Your task to perform on an android device: Turn off the flashlight Image 0: 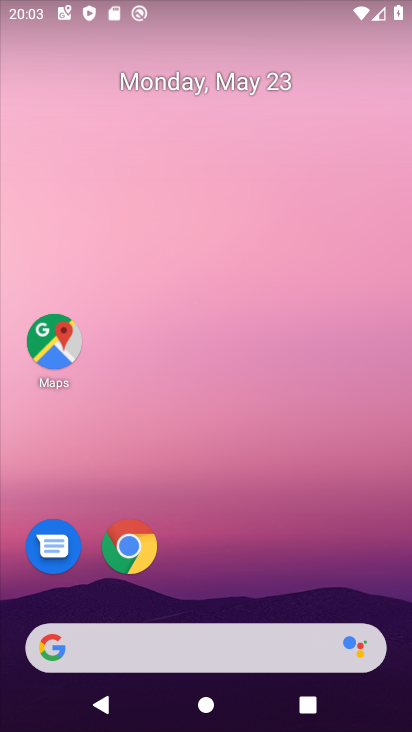
Step 0: drag from (266, 14) to (253, 351)
Your task to perform on an android device: Turn off the flashlight Image 1: 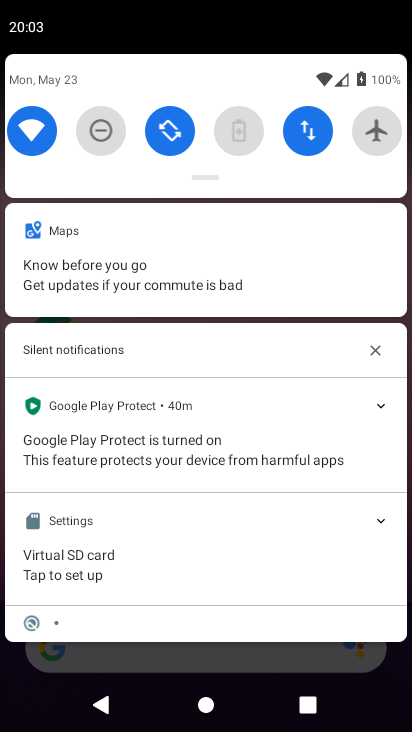
Step 1: drag from (194, 88) to (200, 314)
Your task to perform on an android device: Turn off the flashlight Image 2: 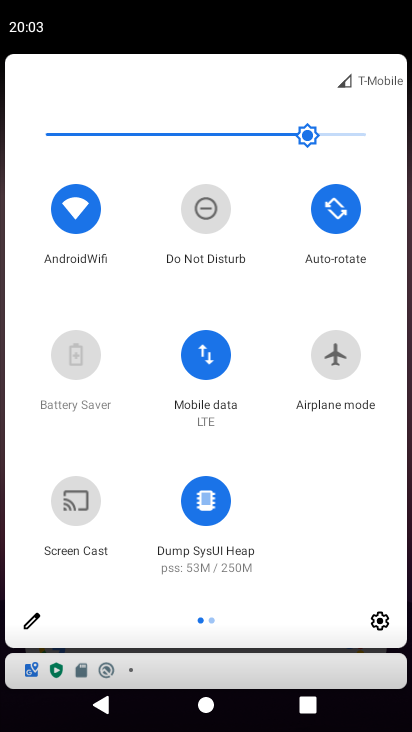
Step 2: drag from (268, 518) to (266, 372)
Your task to perform on an android device: Turn off the flashlight Image 3: 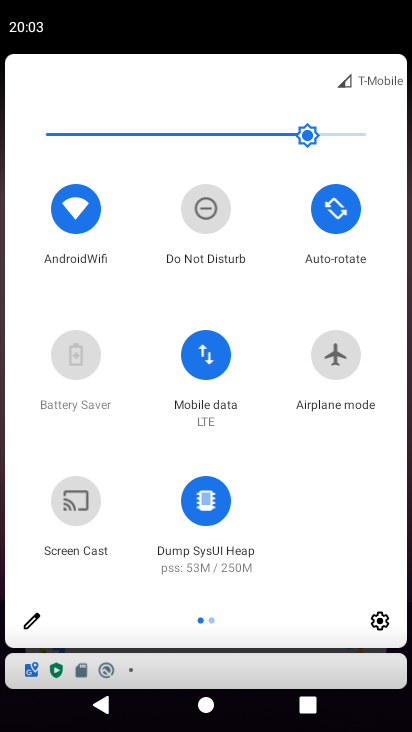
Step 3: click (38, 618)
Your task to perform on an android device: Turn off the flashlight Image 4: 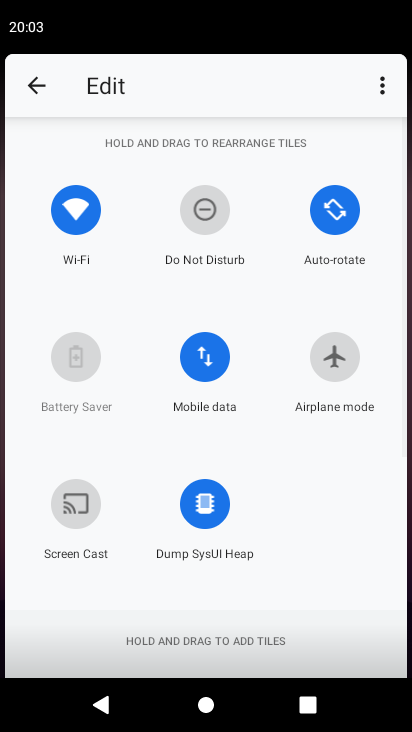
Step 4: task complete